Your task to perform on an android device: Open Wikipedia Image 0: 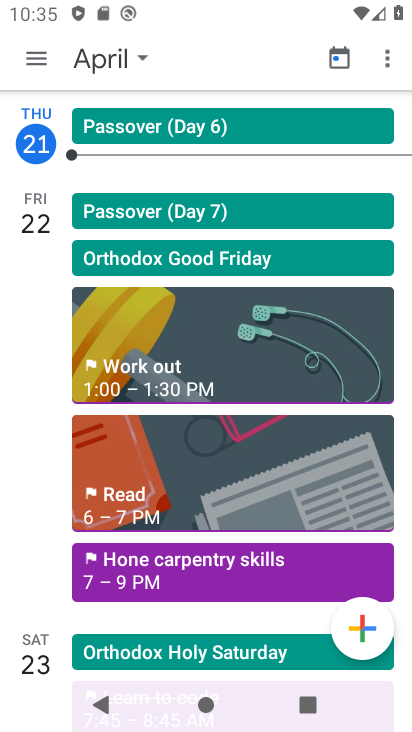
Step 0: press home button
Your task to perform on an android device: Open Wikipedia Image 1: 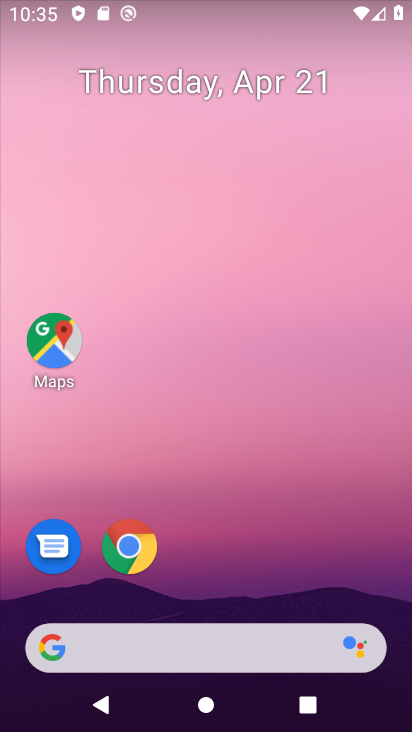
Step 1: drag from (242, 579) to (324, 115)
Your task to perform on an android device: Open Wikipedia Image 2: 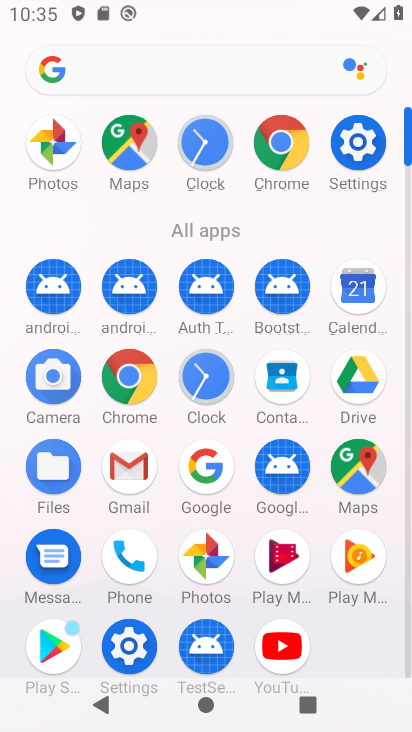
Step 2: click (130, 390)
Your task to perform on an android device: Open Wikipedia Image 3: 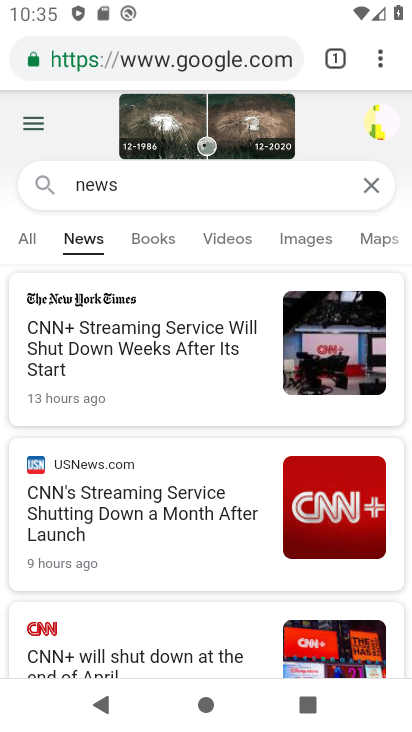
Step 3: click (214, 52)
Your task to perform on an android device: Open Wikipedia Image 4: 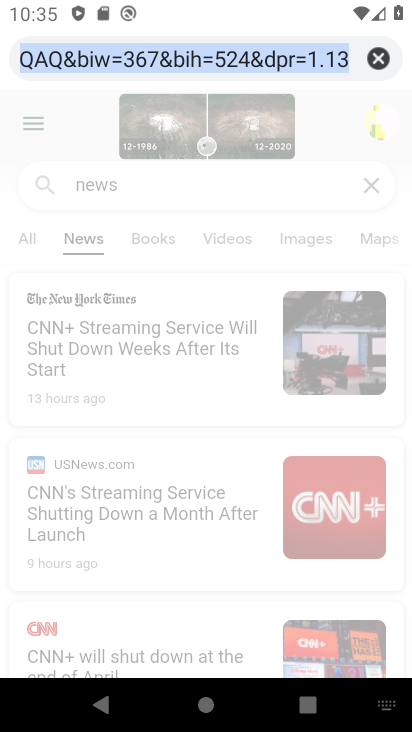
Step 4: type "wikipedia"
Your task to perform on an android device: Open Wikipedia Image 5: 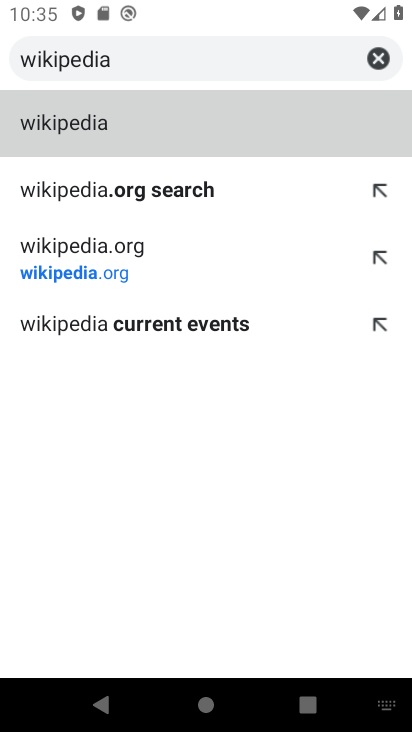
Step 5: click (57, 132)
Your task to perform on an android device: Open Wikipedia Image 6: 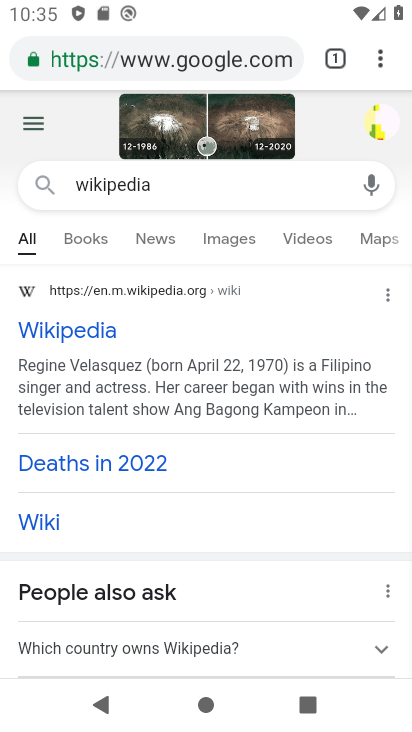
Step 6: click (71, 332)
Your task to perform on an android device: Open Wikipedia Image 7: 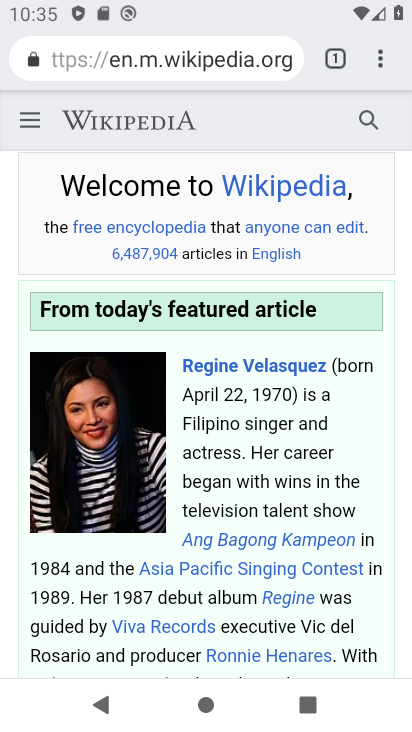
Step 7: task complete